Your task to perform on an android device: uninstall "Google Duo" Image 0: 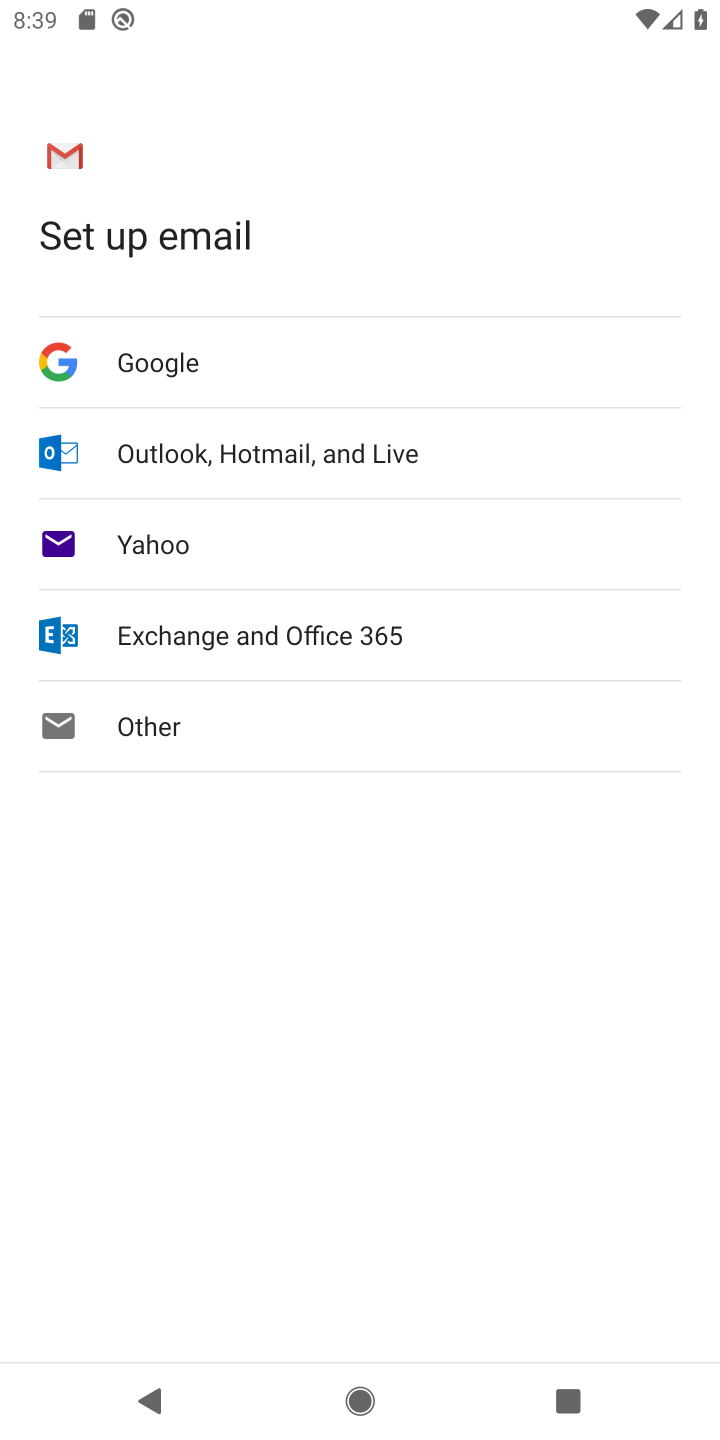
Step 0: press home button
Your task to perform on an android device: uninstall "Google Duo" Image 1: 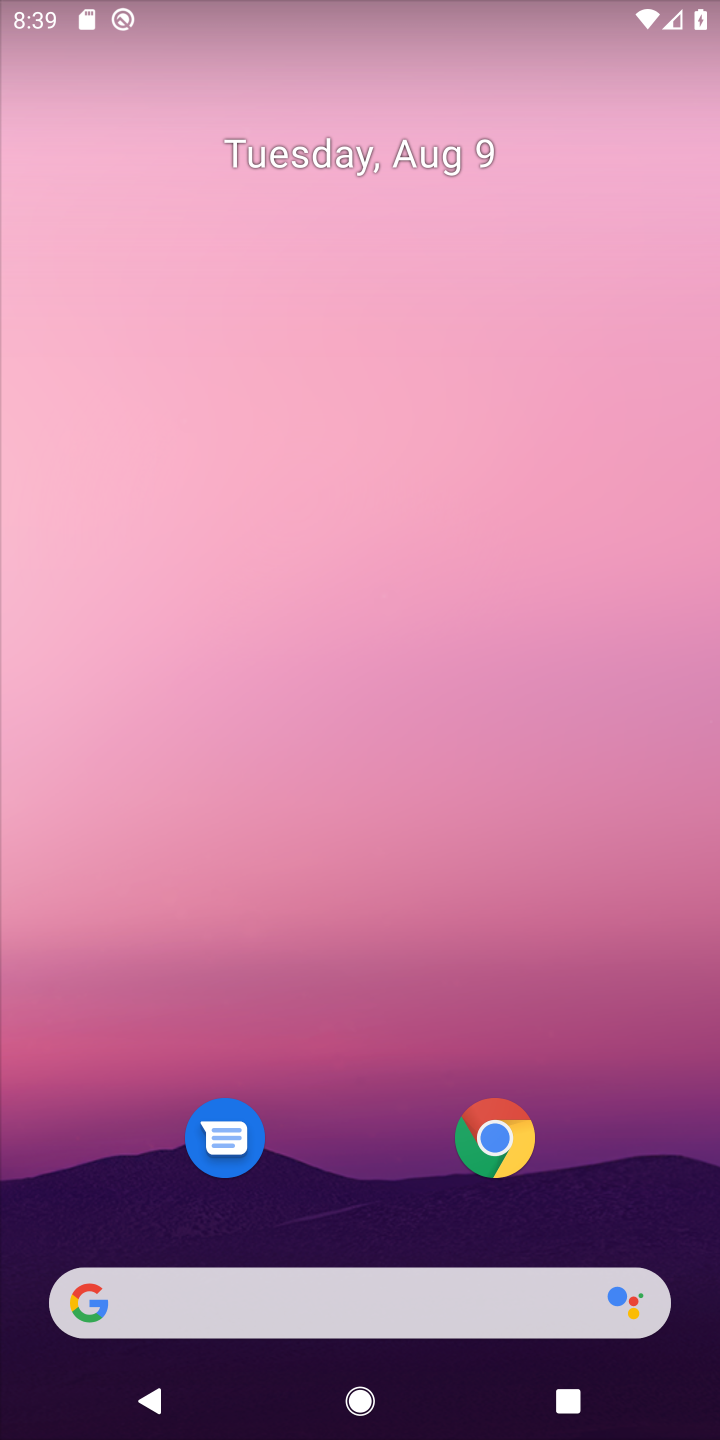
Step 1: drag from (331, 975) to (363, 364)
Your task to perform on an android device: uninstall "Google Duo" Image 2: 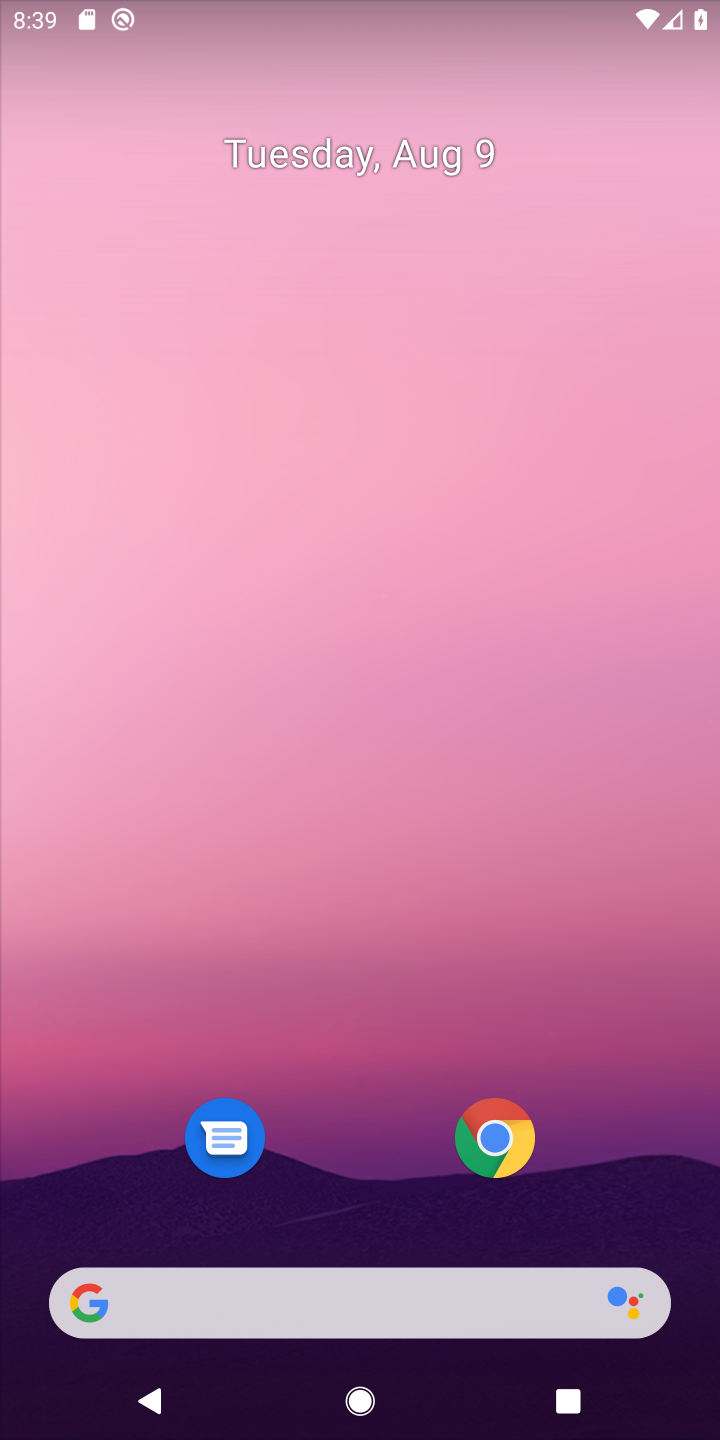
Step 2: drag from (349, 1057) to (448, 321)
Your task to perform on an android device: uninstall "Google Duo" Image 3: 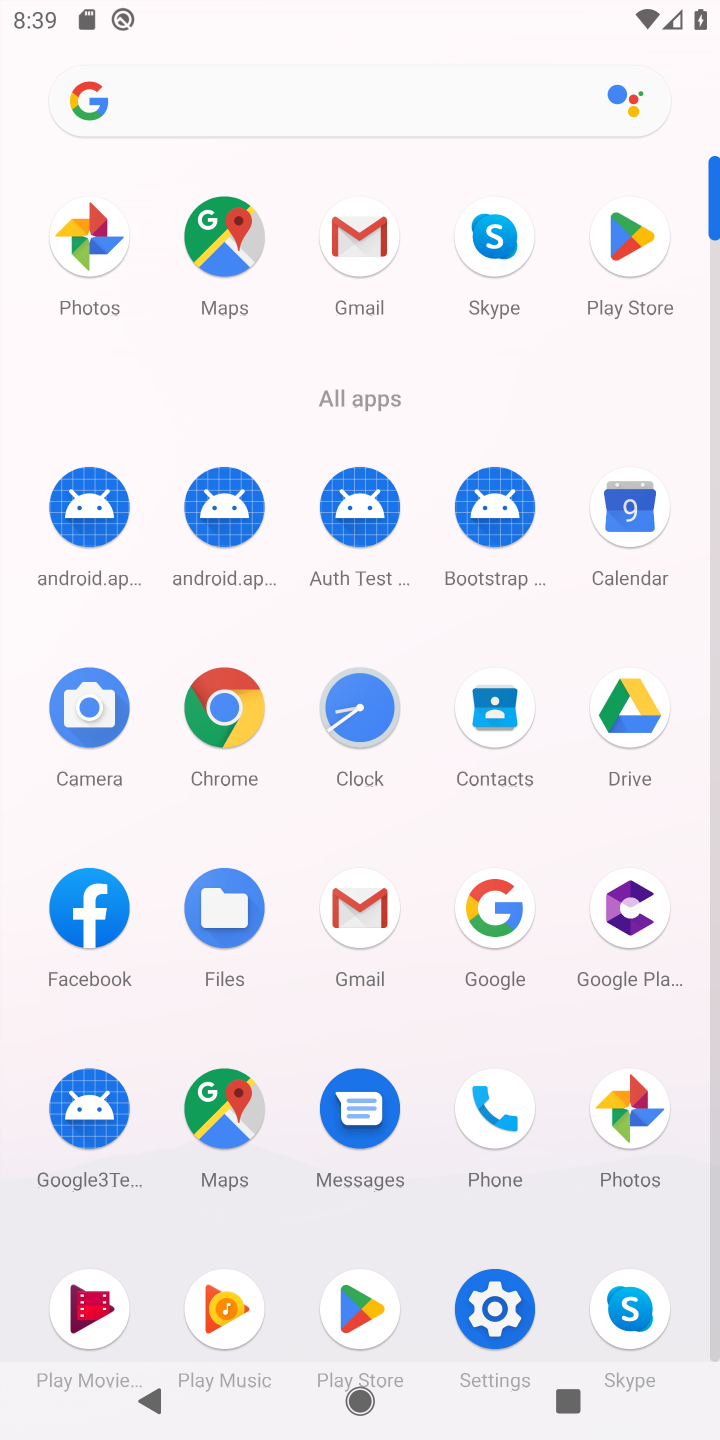
Step 3: click (617, 268)
Your task to perform on an android device: uninstall "Google Duo" Image 4: 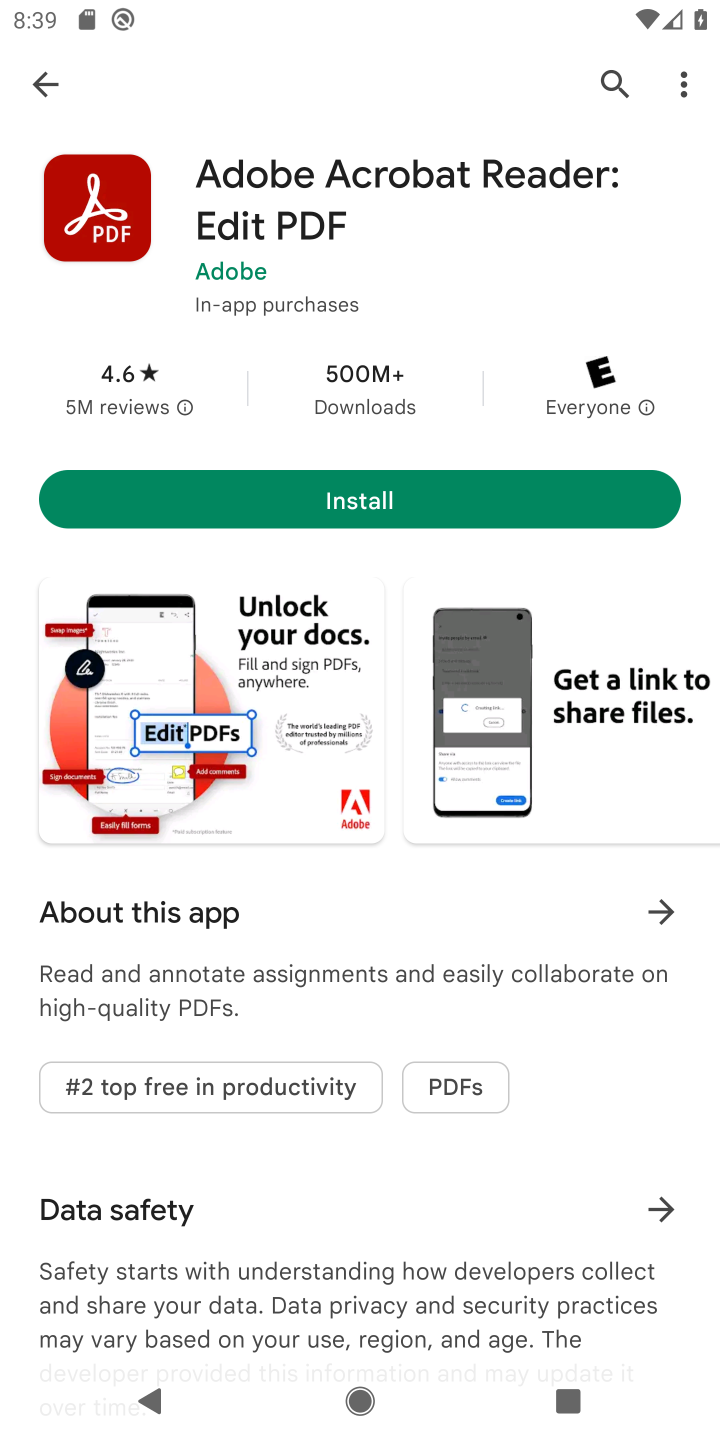
Step 4: click (600, 65)
Your task to perform on an android device: uninstall "Google Duo" Image 5: 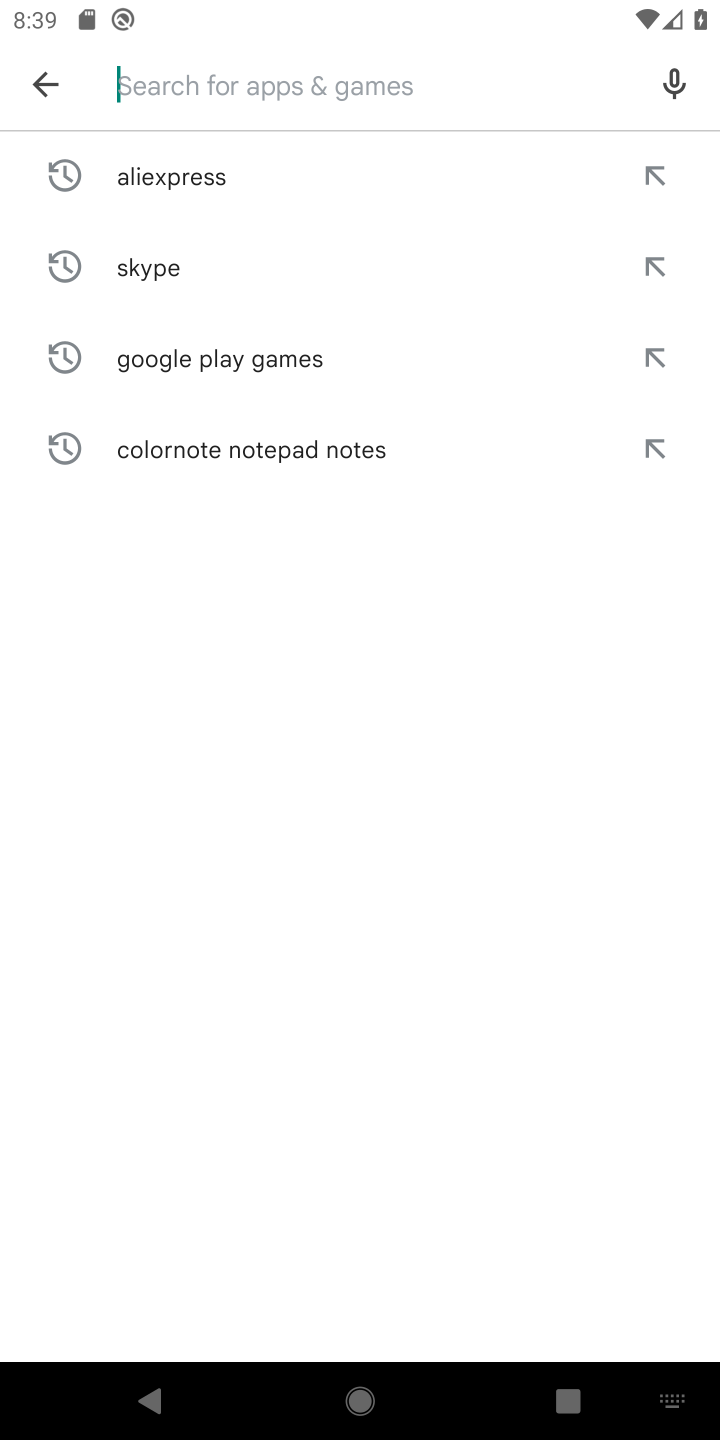
Step 5: type "Google Duo"
Your task to perform on an android device: uninstall "Google Duo" Image 6: 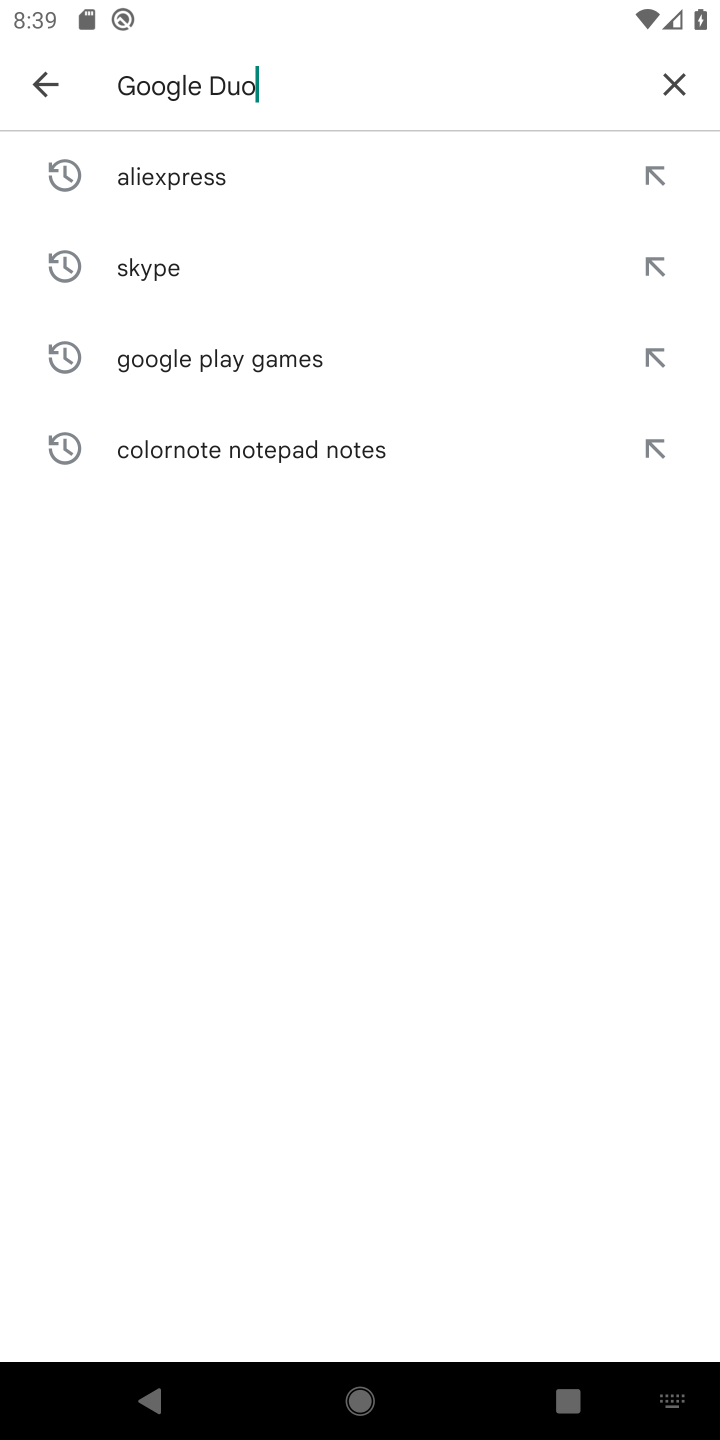
Step 6: type ""
Your task to perform on an android device: uninstall "Google Duo" Image 7: 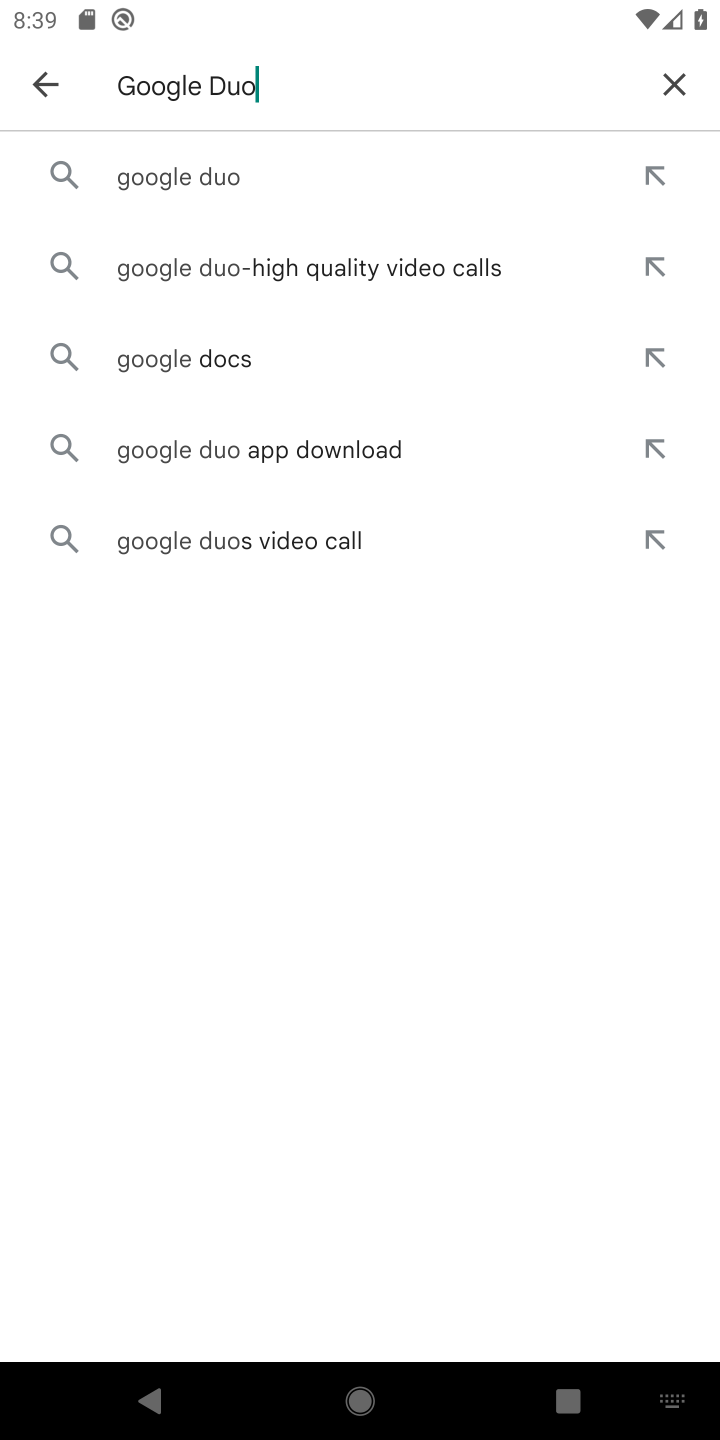
Step 7: click (256, 187)
Your task to perform on an android device: uninstall "Google Duo" Image 8: 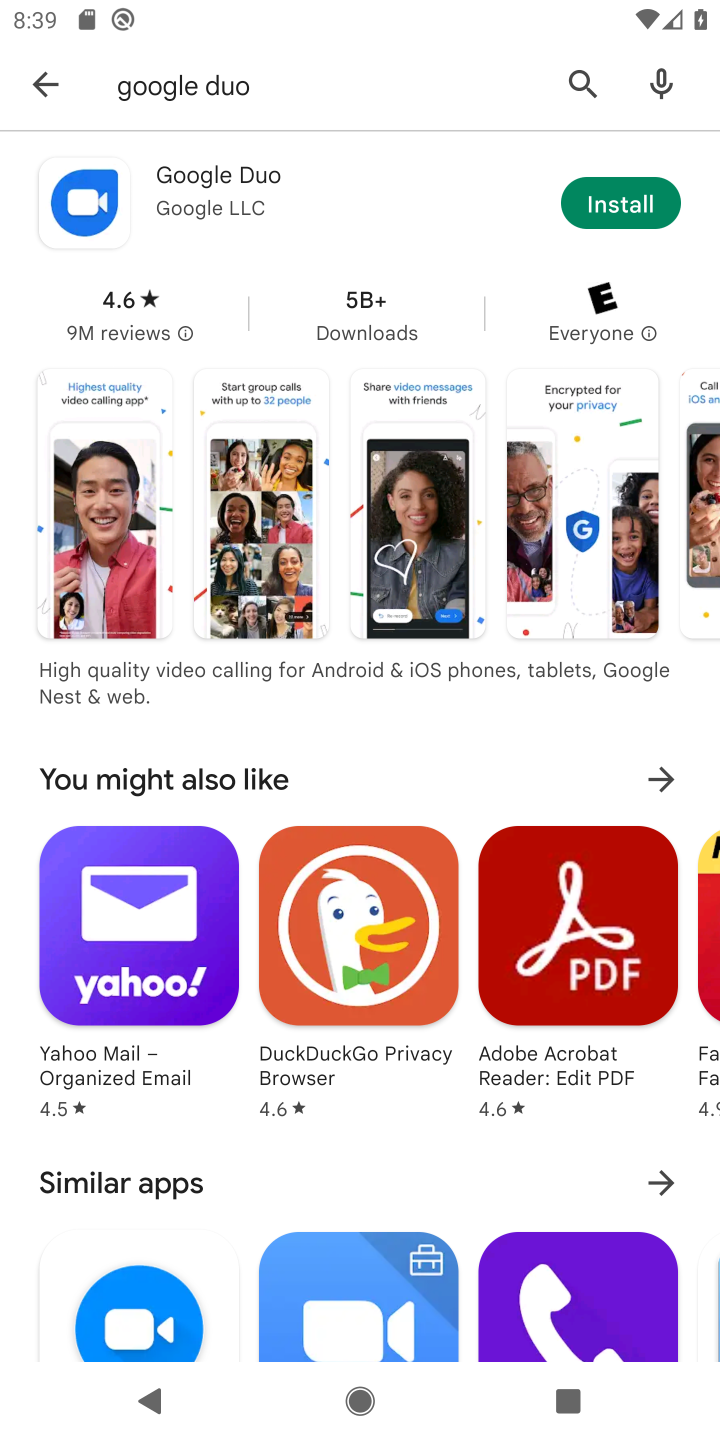
Step 8: task complete